Your task to perform on an android device: turn off location Image 0: 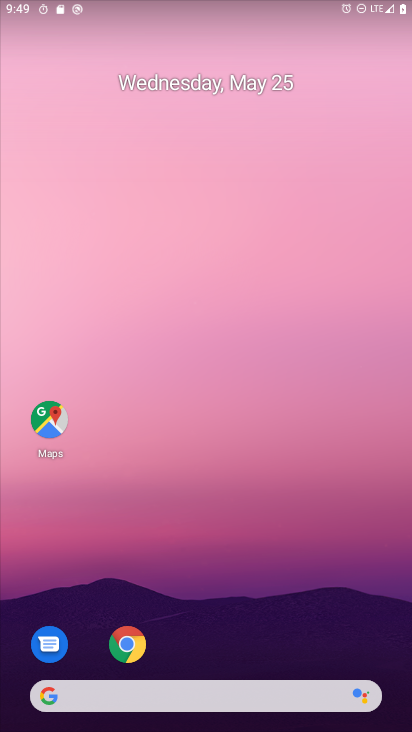
Step 0: drag from (378, 617) to (288, 72)
Your task to perform on an android device: turn off location Image 1: 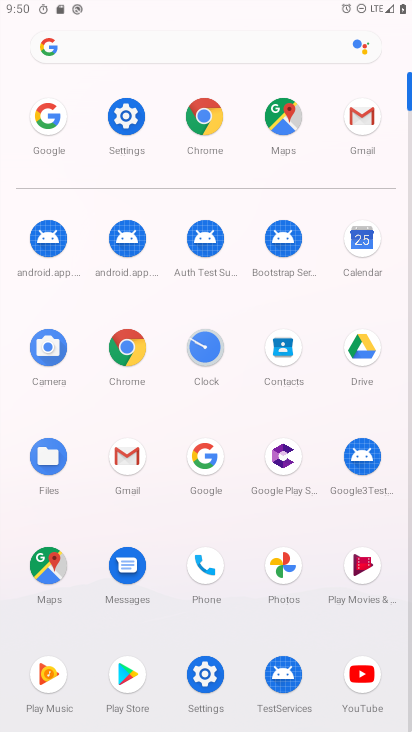
Step 1: click (209, 656)
Your task to perform on an android device: turn off location Image 2: 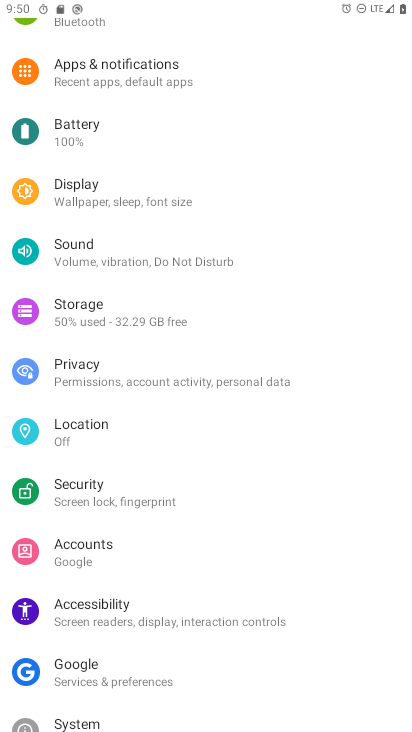
Step 2: click (108, 446)
Your task to perform on an android device: turn off location Image 3: 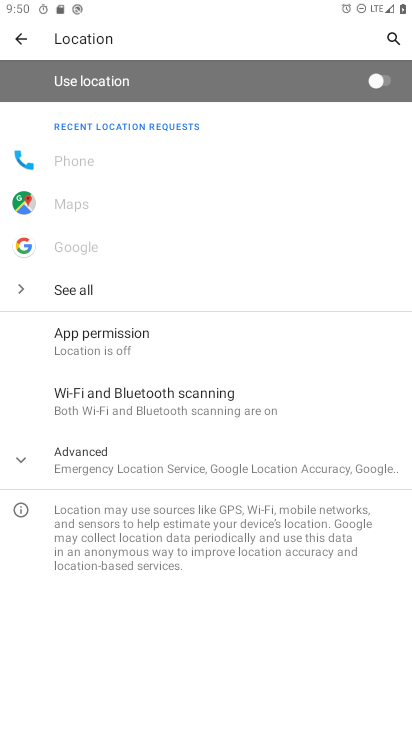
Step 3: task complete